Your task to perform on an android device: Go to network settings Image 0: 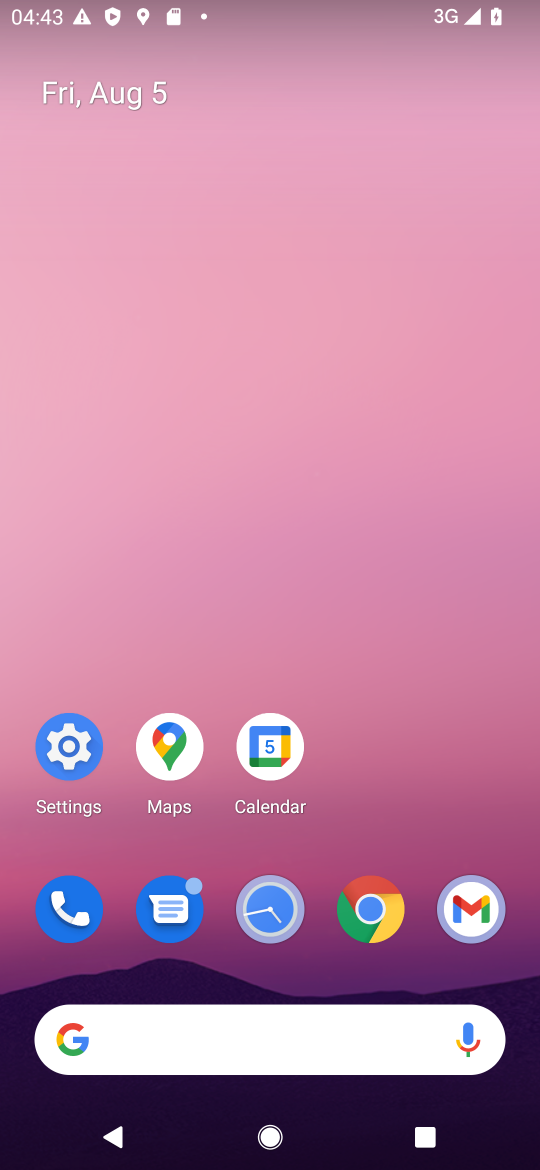
Step 0: click (67, 735)
Your task to perform on an android device: Go to network settings Image 1: 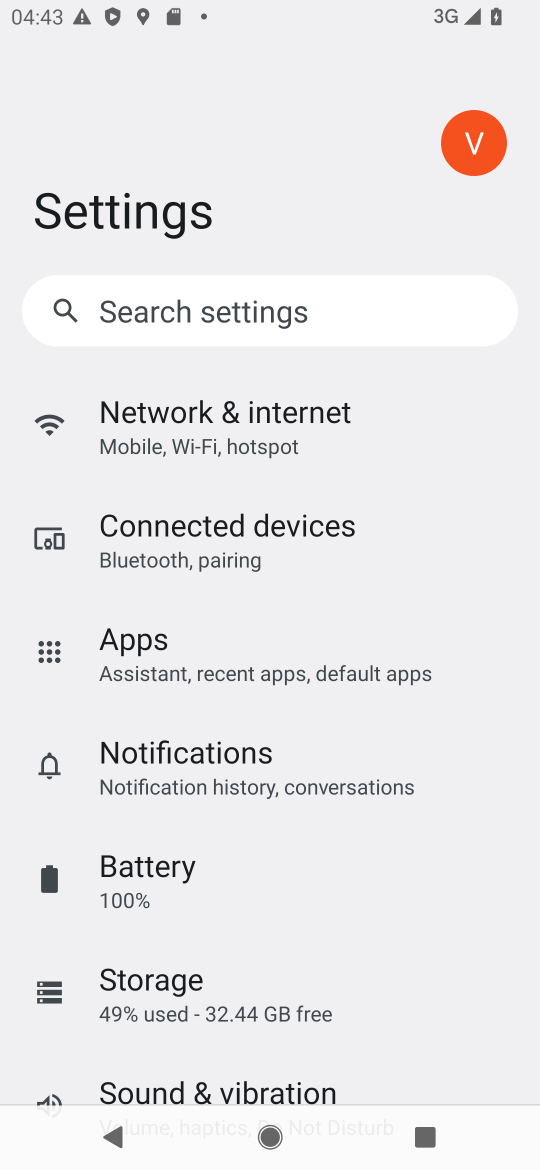
Step 1: click (229, 412)
Your task to perform on an android device: Go to network settings Image 2: 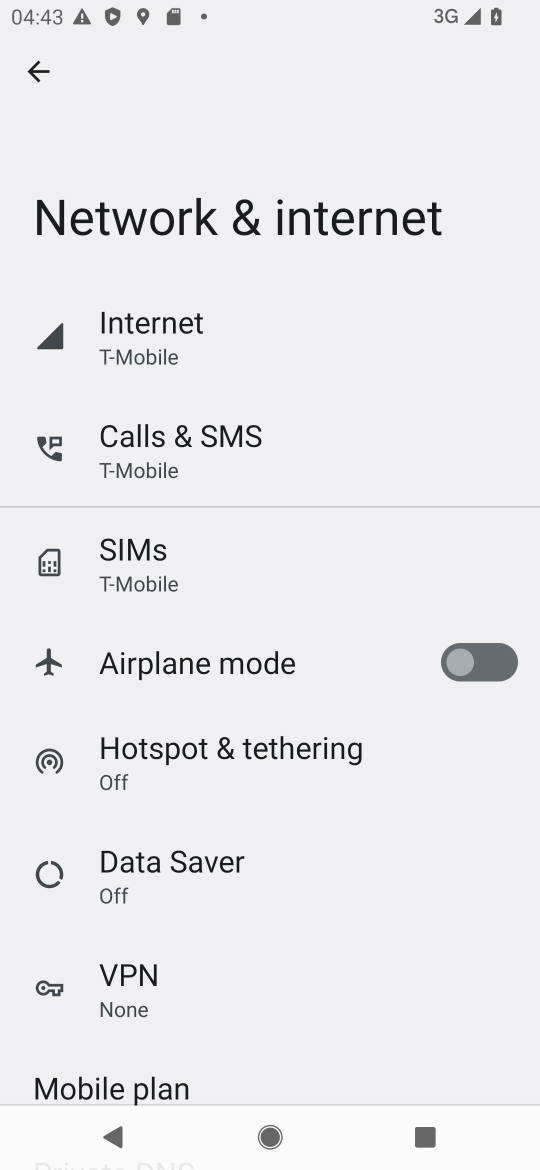
Step 2: task complete